Your task to perform on an android device: Open Google Maps and go to "Timeline" Image 0: 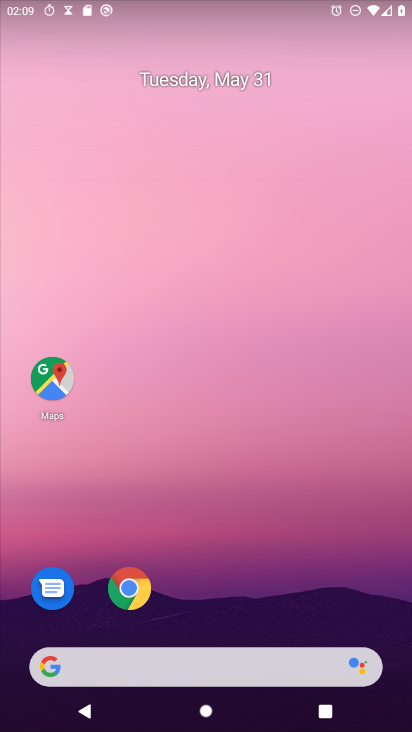
Step 0: drag from (319, 641) to (256, 28)
Your task to perform on an android device: Open Google Maps and go to "Timeline" Image 1: 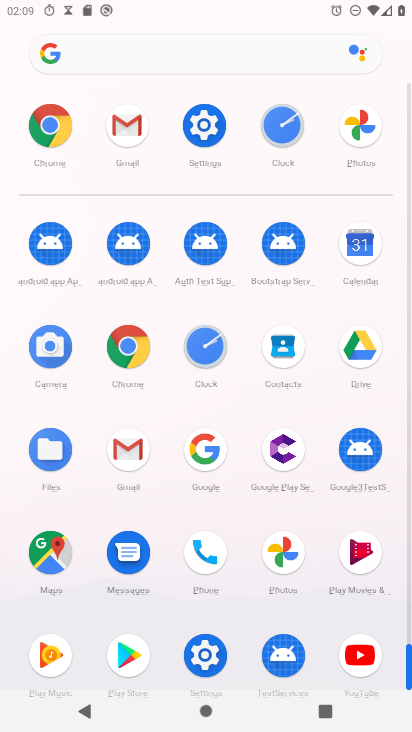
Step 1: click (44, 561)
Your task to perform on an android device: Open Google Maps and go to "Timeline" Image 2: 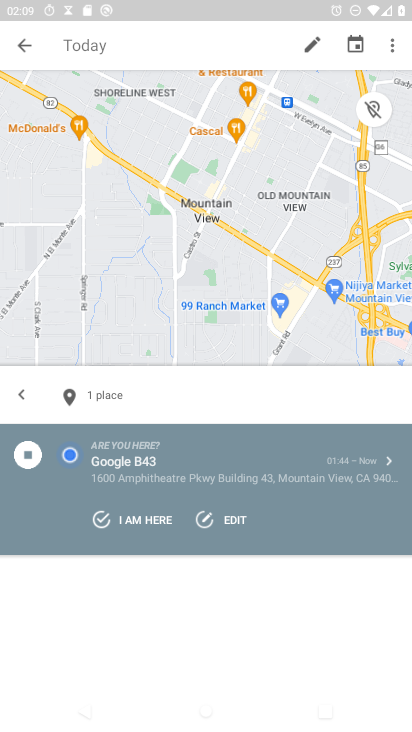
Step 2: task complete